Your task to perform on an android device: add a contact Image 0: 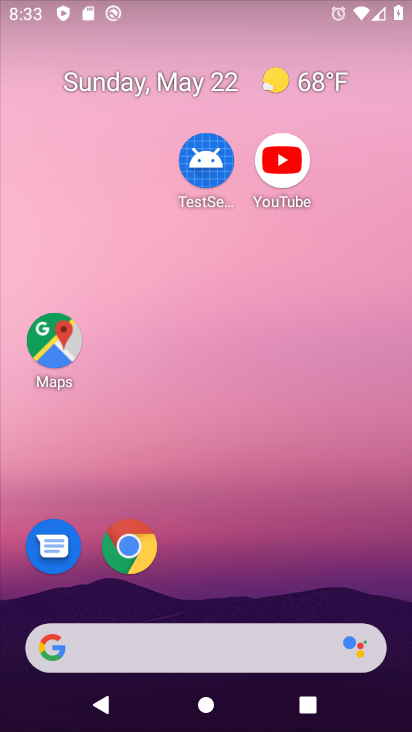
Step 0: drag from (250, 720) to (109, 261)
Your task to perform on an android device: add a contact Image 1: 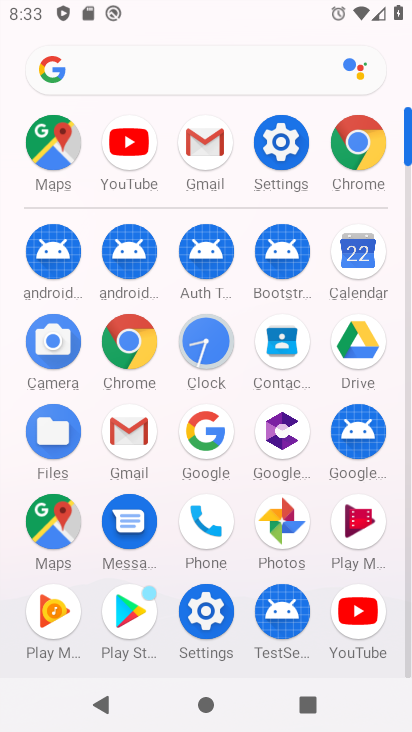
Step 1: click (279, 345)
Your task to perform on an android device: add a contact Image 2: 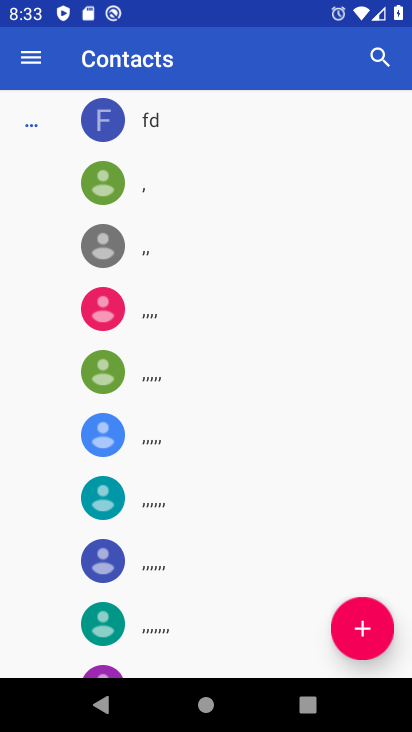
Step 2: click (359, 632)
Your task to perform on an android device: add a contact Image 3: 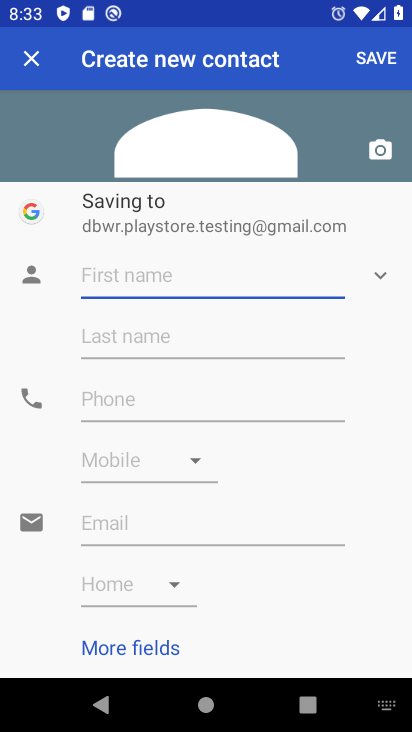
Step 3: type "htffytjkkbjbk"
Your task to perform on an android device: add a contact Image 4: 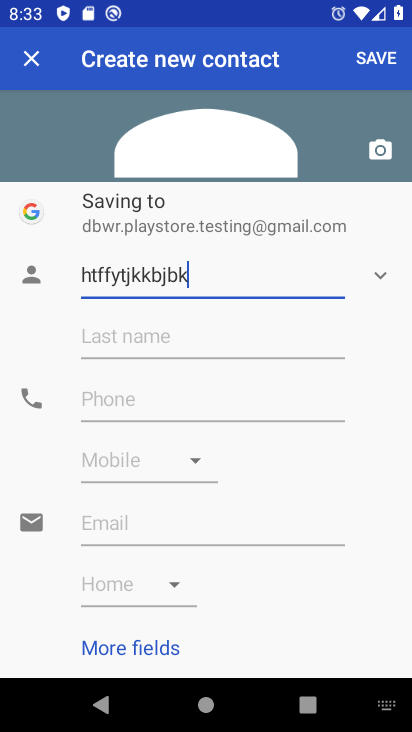
Step 4: click (95, 404)
Your task to perform on an android device: add a contact Image 5: 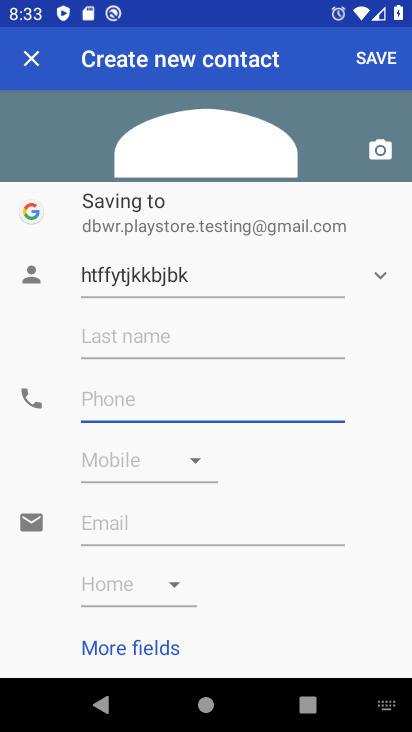
Step 5: type "578789455546"
Your task to perform on an android device: add a contact Image 6: 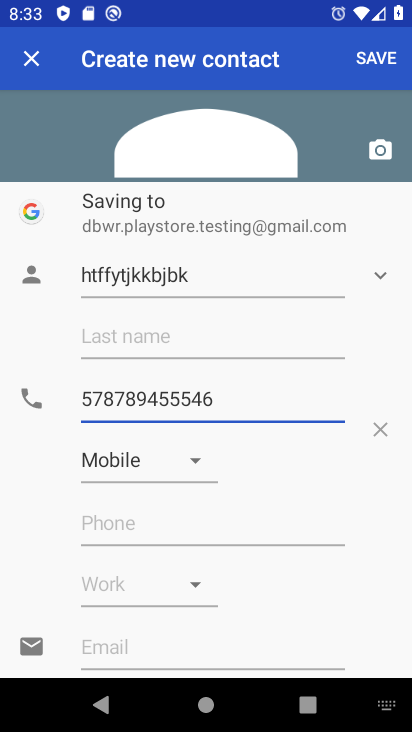
Step 6: click (381, 61)
Your task to perform on an android device: add a contact Image 7: 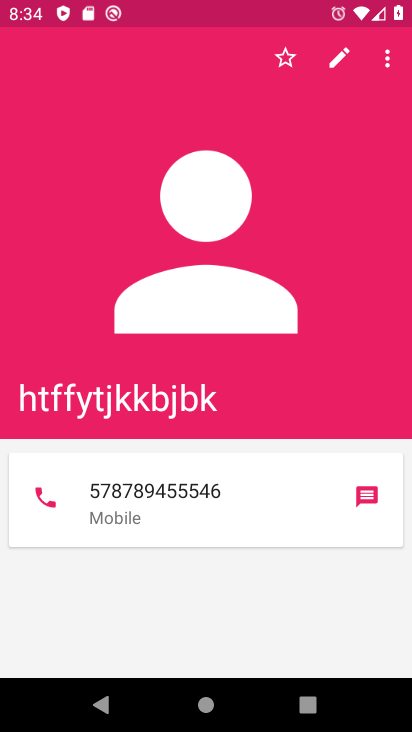
Step 7: task complete